Your task to perform on an android device: turn off data saver in the chrome app Image 0: 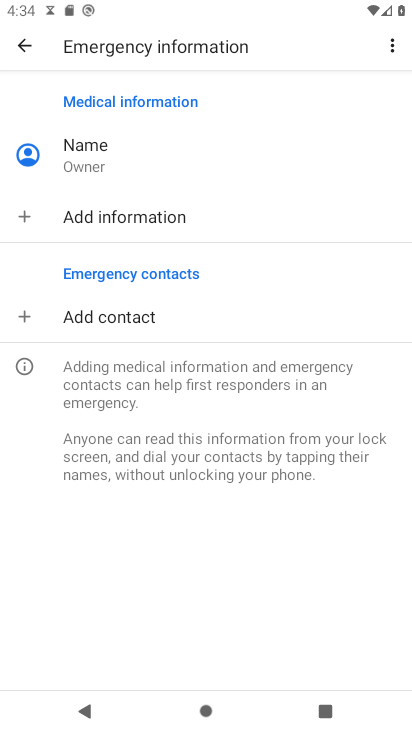
Step 0: press home button
Your task to perform on an android device: turn off data saver in the chrome app Image 1: 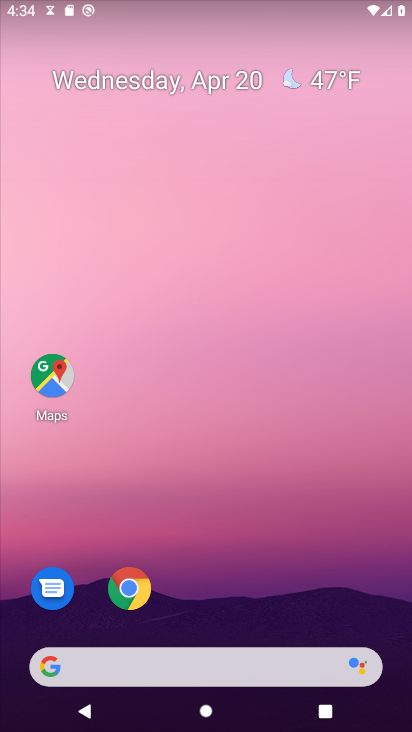
Step 1: click (133, 584)
Your task to perform on an android device: turn off data saver in the chrome app Image 2: 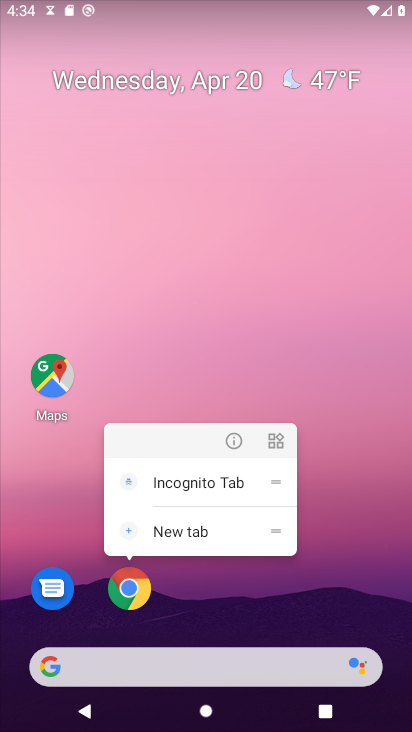
Step 2: click (133, 575)
Your task to perform on an android device: turn off data saver in the chrome app Image 3: 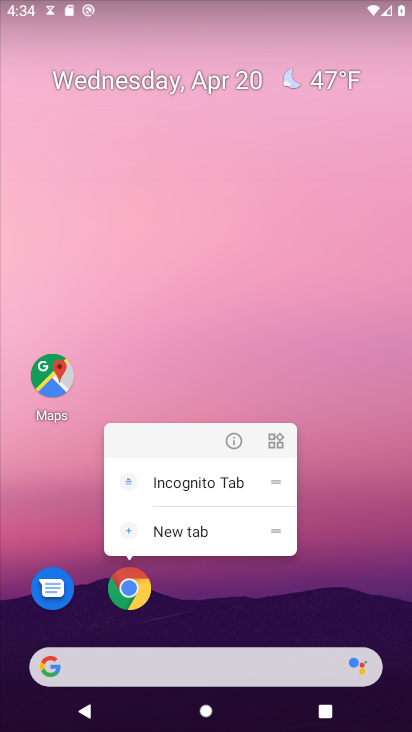
Step 3: click (132, 575)
Your task to perform on an android device: turn off data saver in the chrome app Image 4: 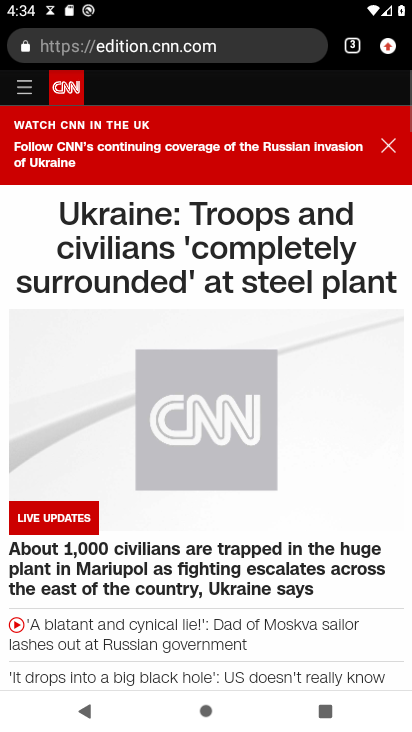
Step 4: click (389, 43)
Your task to perform on an android device: turn off data saver in the chrome app Image 5: 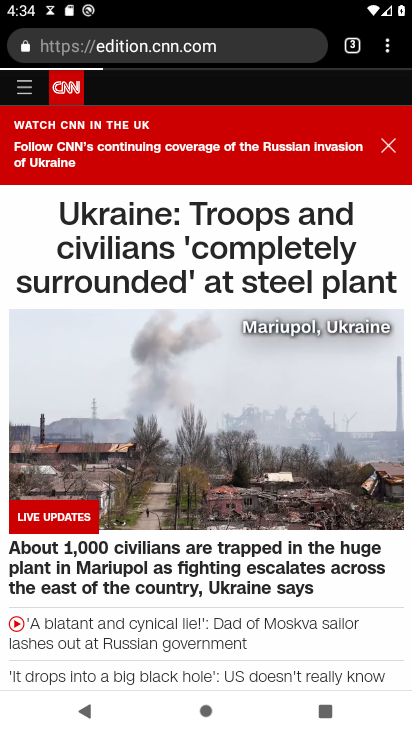
Step 5: click (388, 43)
Your task to perform on an android device: turn off data saver in the chrome app Image 6: 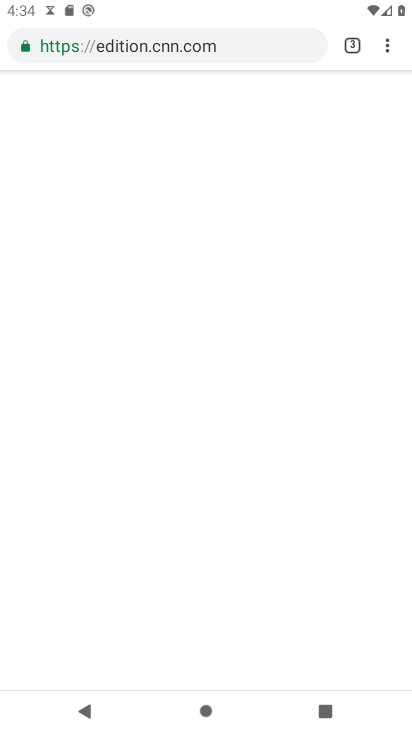
Step 6: click (388, 43)
Your task to perform on an android device: turn off data saver in the chrome app Image 7: 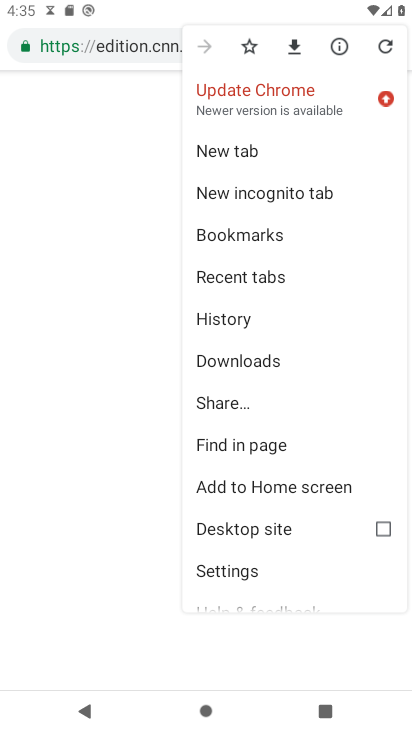
Step 7: click (226, 572)
Your task to perform on an android device: turn off data saver in the chrome app Image 8: 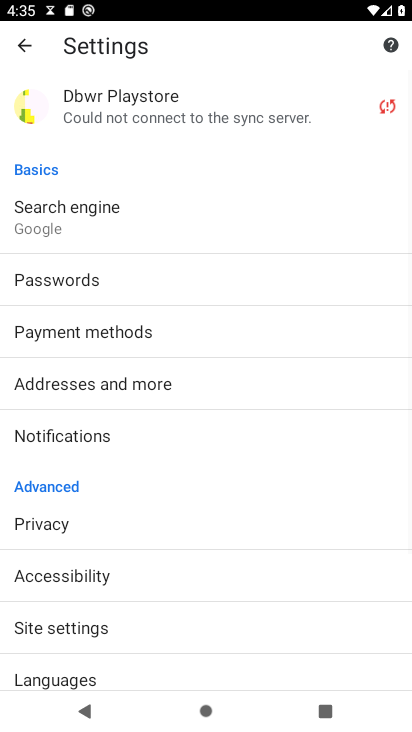
Step 8: drag from (136, 562) to (132, 426)
Your task to perform on an android device: turn off data saver in the chrome app Image 9: 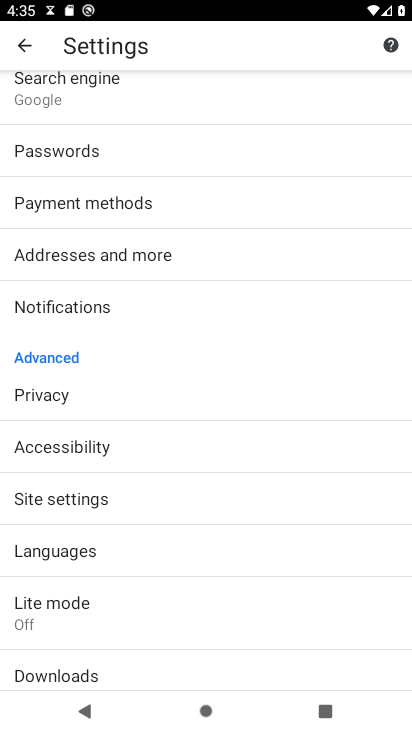
Step 9: click (91, 614)
Your task to perform on an android device: turn off data saver in the chrome app Image 10: 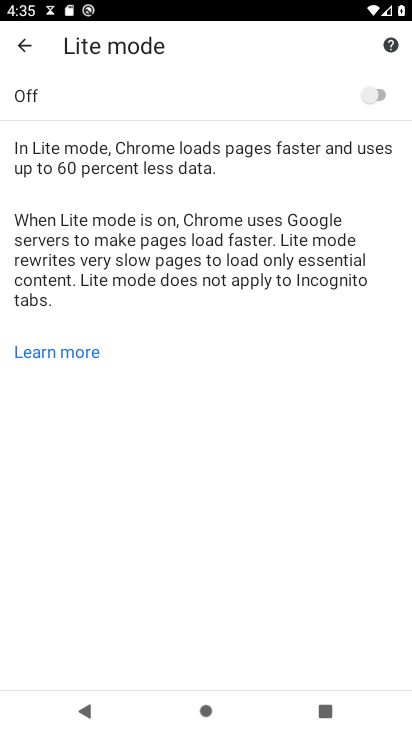
Step 10: task complete